Your task to perform on an android device: change the clock style Image 0: 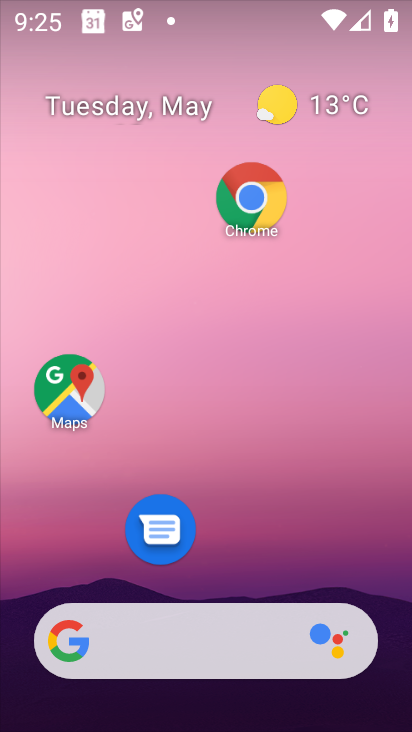
Step 0: drag from (218, 463) to (196, 85)
Your task to perform on an android device: change the clock style Image 1: 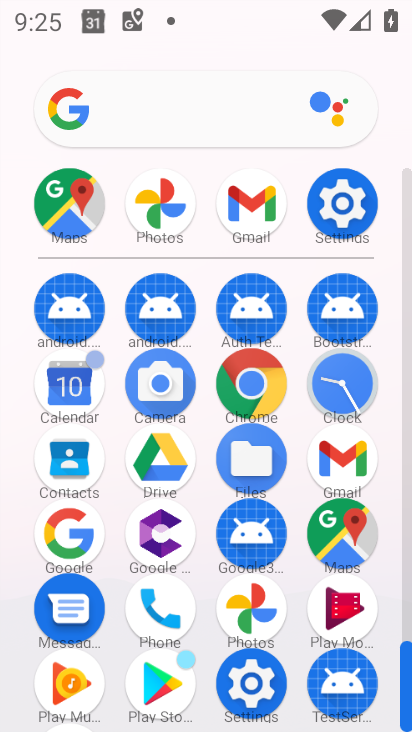
Step 1: click (349, 205)
Your task to perform on an android device: change the clock style Image 2: 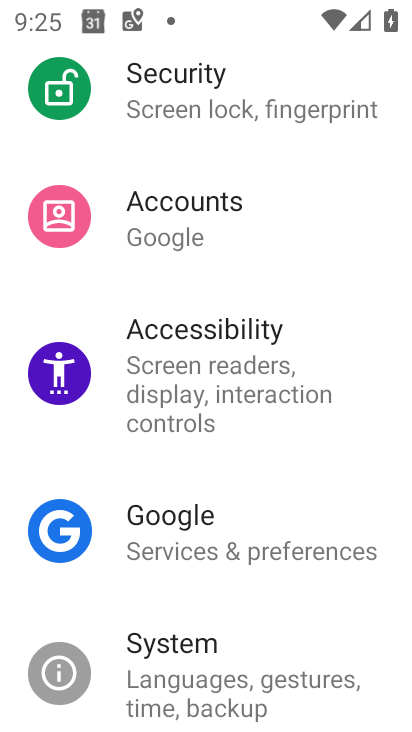
Step 2: drag from (214, 208) to (189, 699)
Your task to perform on an android device: change the clock style Image 3: 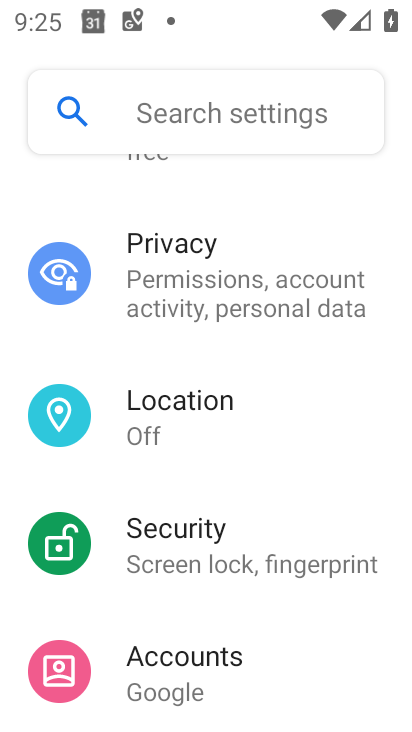
Step 3: drag from (200, 301) to (199, 632)
Your task to perform on an android device: change the clock style Image 4: 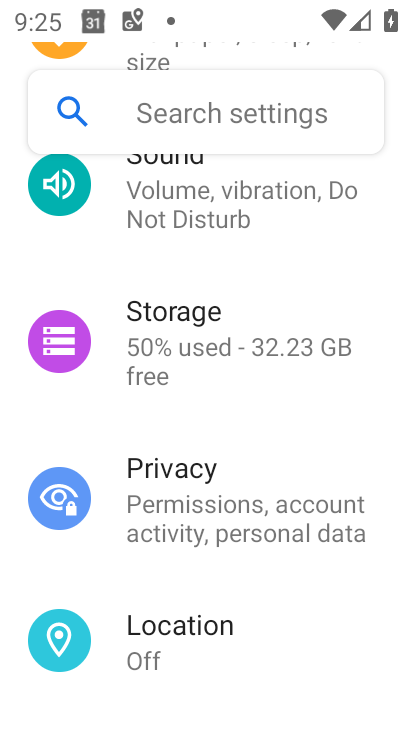
Step 4: press home button
Your task to perform on an android device: change the clock style Image 5: 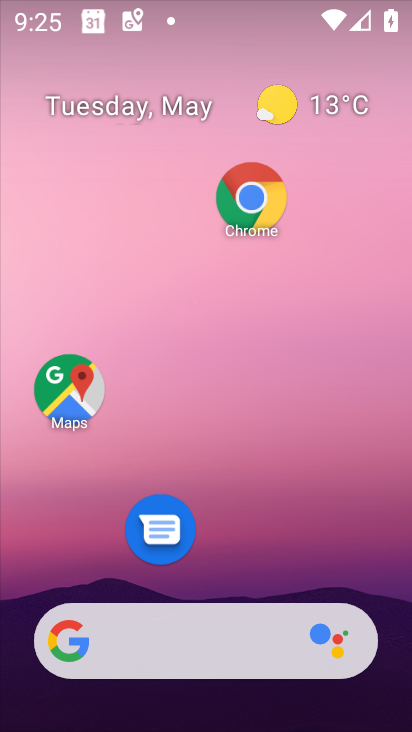
Step 5: drag from (238, 539) to (236, 112)
Your task to perform on an android device: change the clock style Image 6: 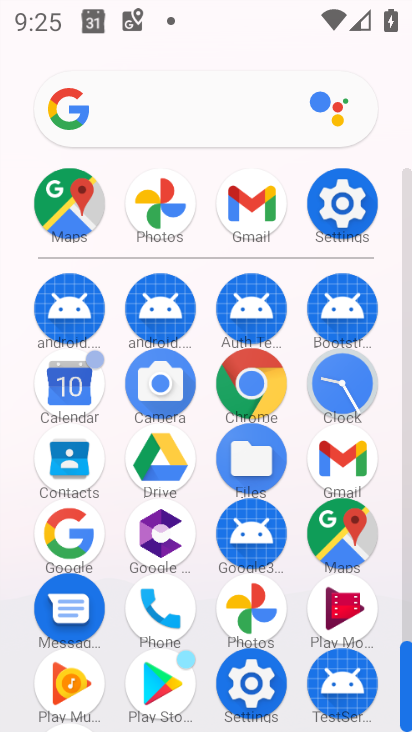
Step 6: click (348, 399)
Your task to perform on an android device: change the clock style Image 7: 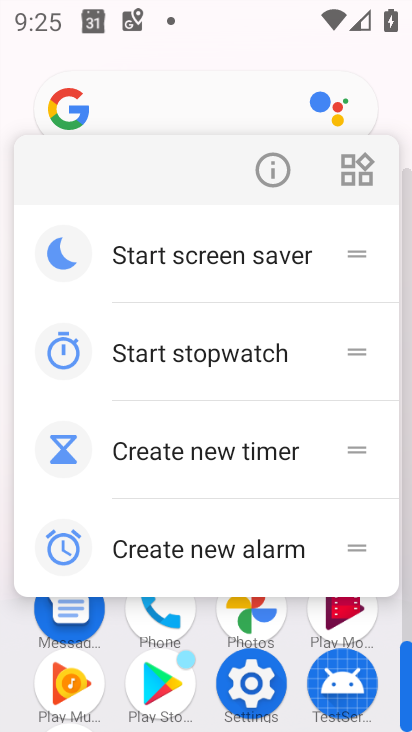
Step 7: click (239, 592)
Your task to perform on an android device: change the clock style Image 8: 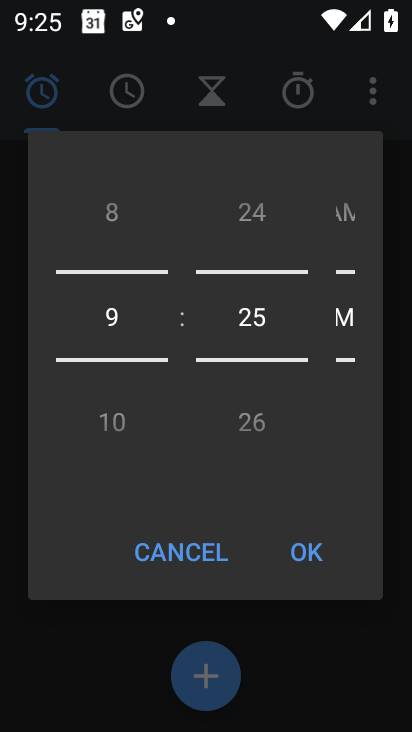
Step 8: click (322, 535)
Your task to perform on an android device: change the clock style Image 9: 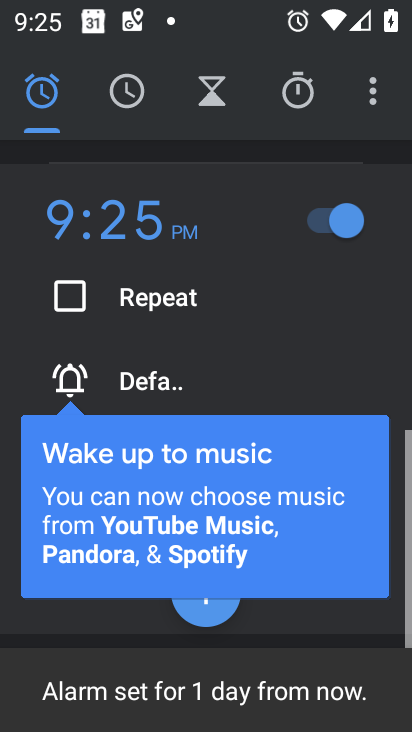
Step 9: click (384, 101)
Your task to perform on an android device: change the clock style Image 10: 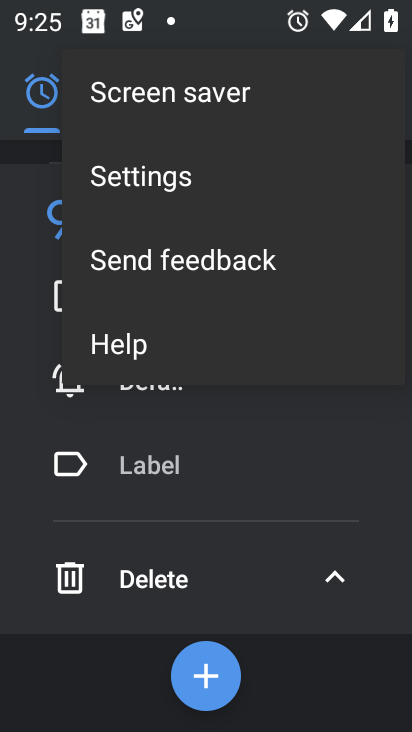
Step 10: click (224, 191)
Your task to perform on an android device: change the clock style Image 11: 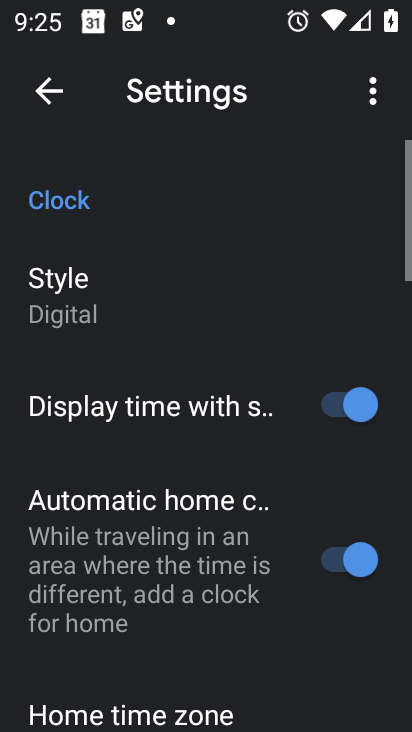
Step 11: click (151, 281)
Your task to perform on an android device: change the clock style Image 12: 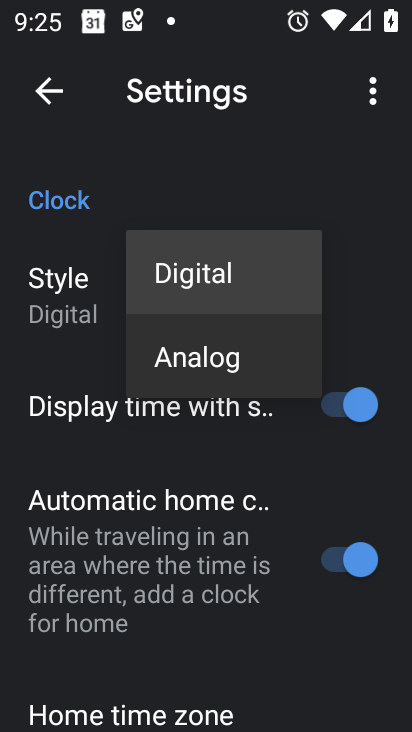
Step 12: click (160, 355)
Your task to perform on an android device: change the clock style Image 13: 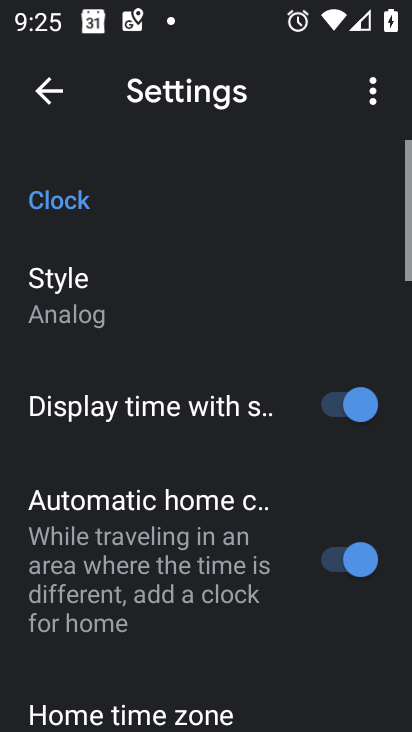
Step 13: task complete